Your task to perform on an android device: uninstall "Expedia: Hotels, Flights & Car" Image 0: 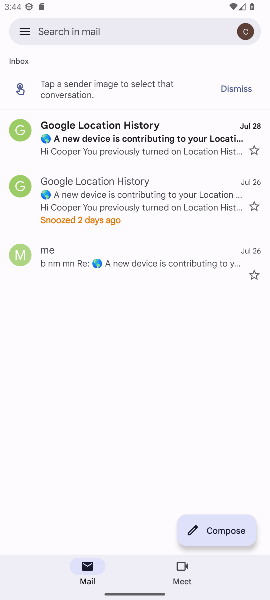
Step 0: press home button
Your task to perform on an android device: uninstall "Expedia: Hotels, Flights & Car" Image 1: 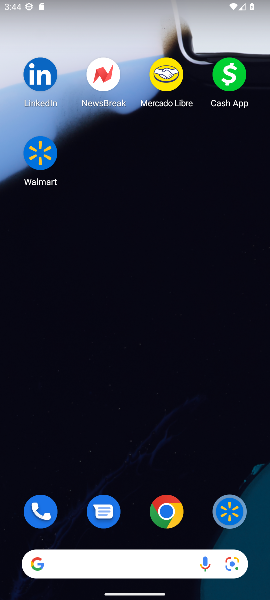
Step 1: drag from (120, 524) to (112, 287)
Your task to perform on an android device: uninstall "Expedia: Hotels, Flights & Car" Image 2: 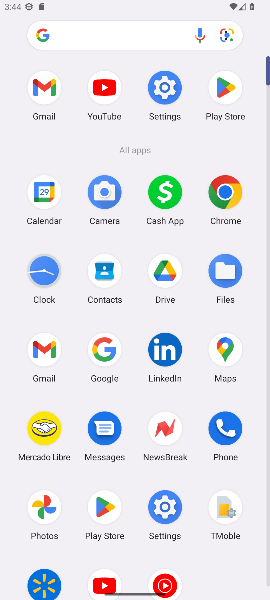
Step 2: click (96, 512)
Your task to perform on an android device: uninstall "Expedia: Hotels, Flights & Car" Image 3: 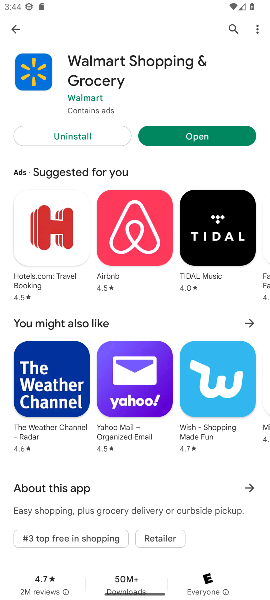
Step 3: click (12, 30)
Your task to perform on an android device: uninstall "Expedia: Hotels, Flights & Car" Image 4: 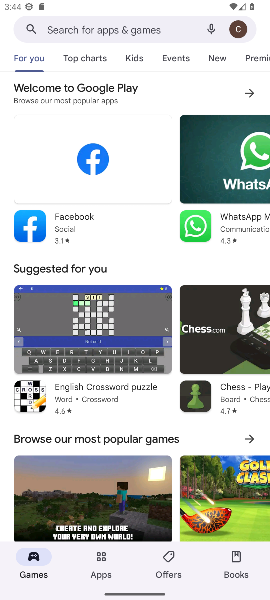
Step 4: click (75, 31)
Your task to perform on an android device: uninstall "Expedia: Hotels, Flights & Car" Image 5: 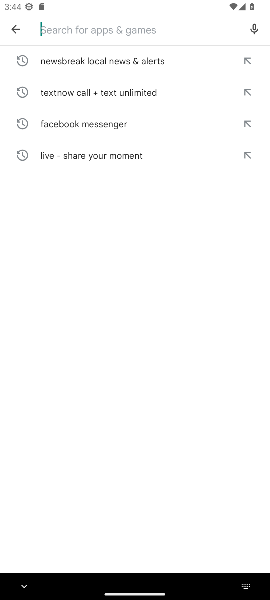
Step 5: type "Expedia: Hotels, Flights & Car"
Your task to perform on an android device: uninstall "Expedia: Hotels, Flights & Car" Image 6: 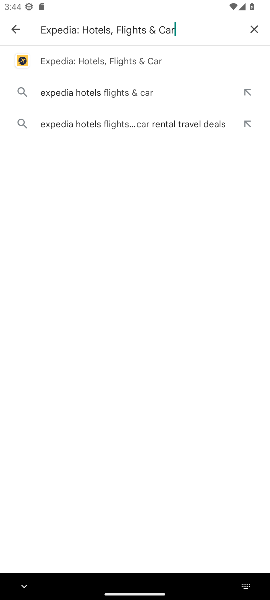
Step 6: click (110, 64)
Your task to perform on an android device: uninstall "Expedia: Hotels, Flights & Car" Image 7: 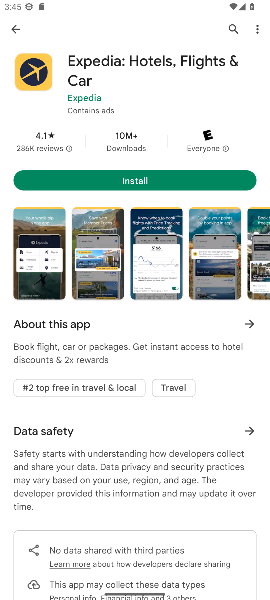
Step 7: task complete